Your task to perform on an android device: When is my next meeting? Image 0: 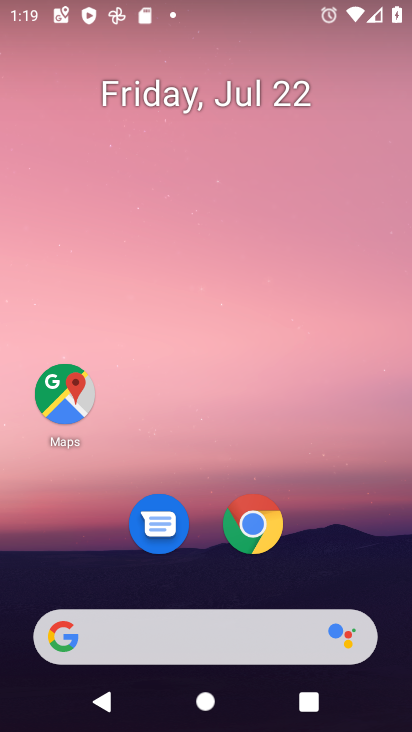
Step 0: drag from (272, 355) to (389, 42)
Your task to perform on an android device: When is my next meeting? Image 1: 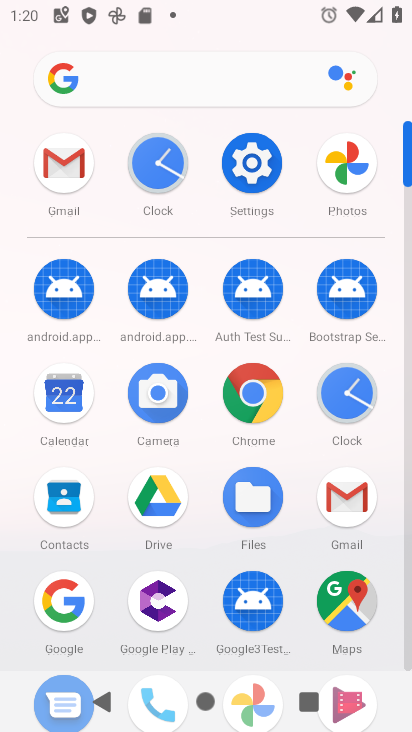
Step 1: click (69, 404)
Your task to perform on an android device: When is my next meeting? Image 2: 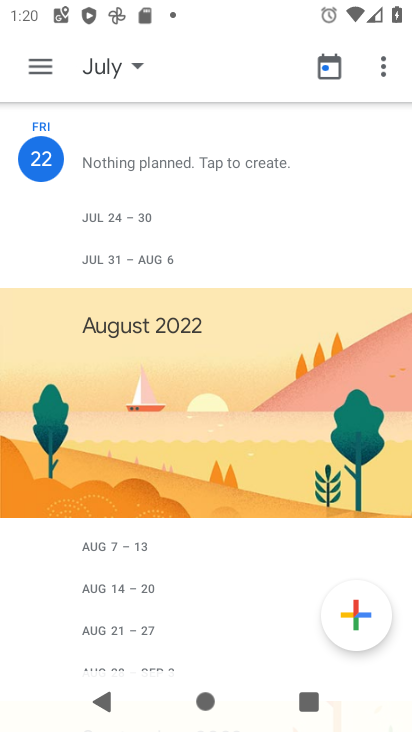
Step 2: task complete